Your task to perform on an android device: open app "Life360: Find Family & Friends" Image 0: 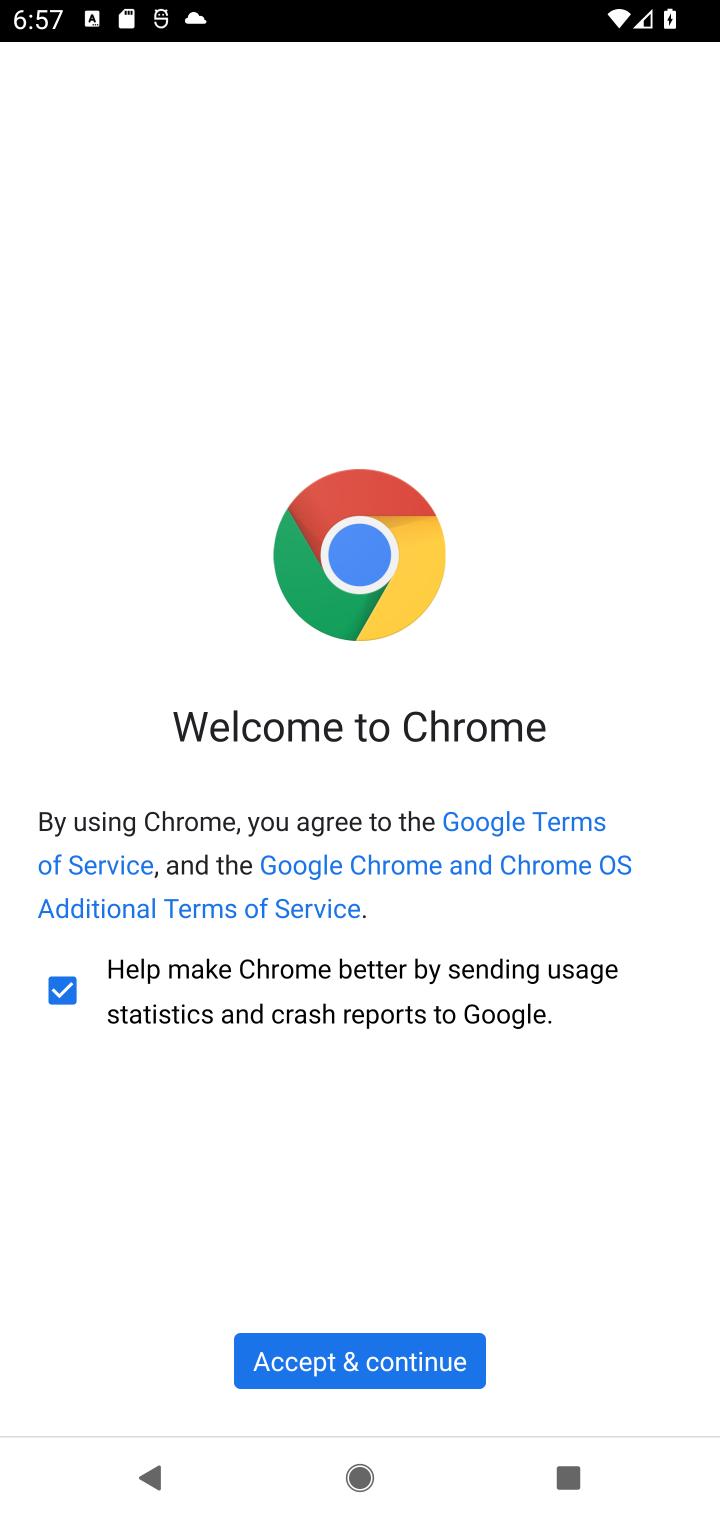
Step 0: press home button
Your task to perform on an android device: open app "Life360: Find Family & Friends" Image 1: 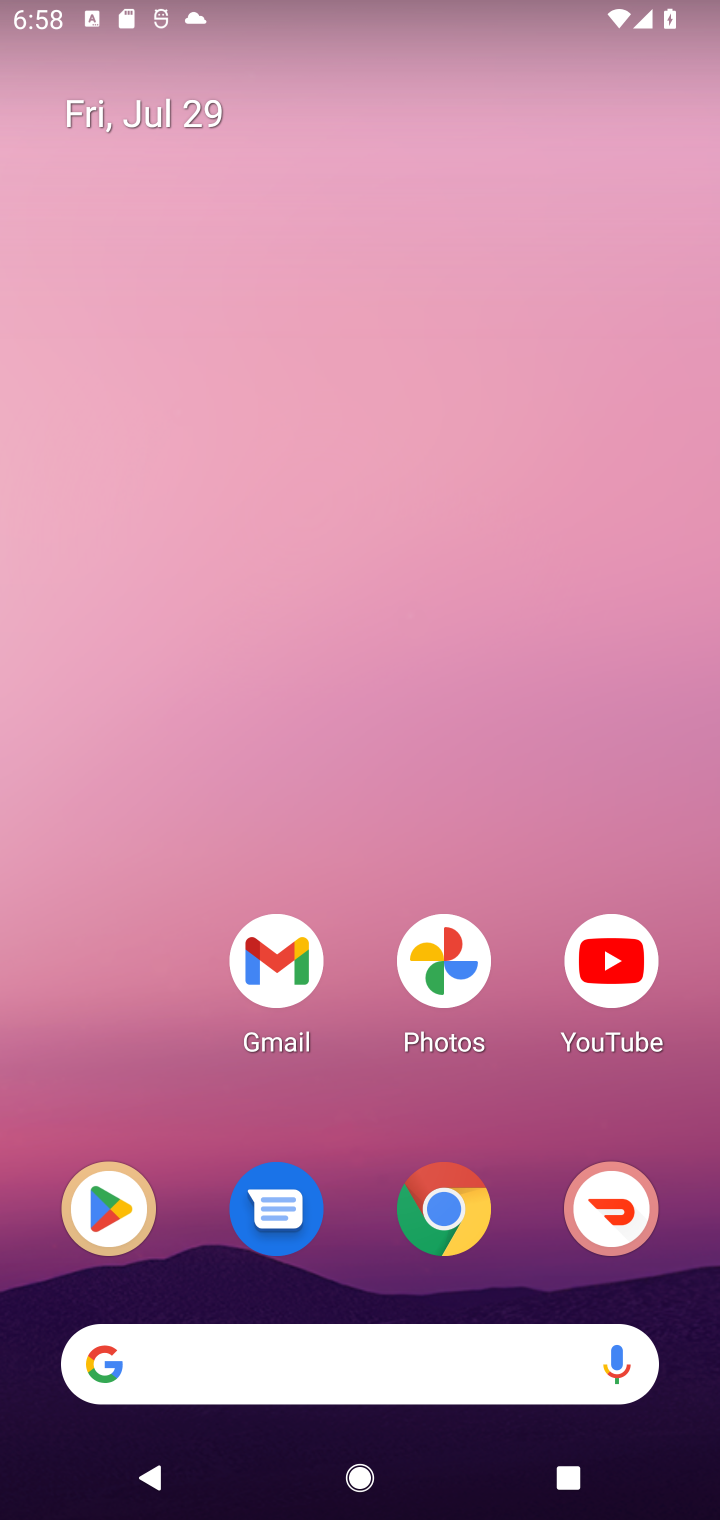
Step 1: click (115, 1223)
Your task to perform on an android device: open app "Life360: Find Family & Friends" Image 2: 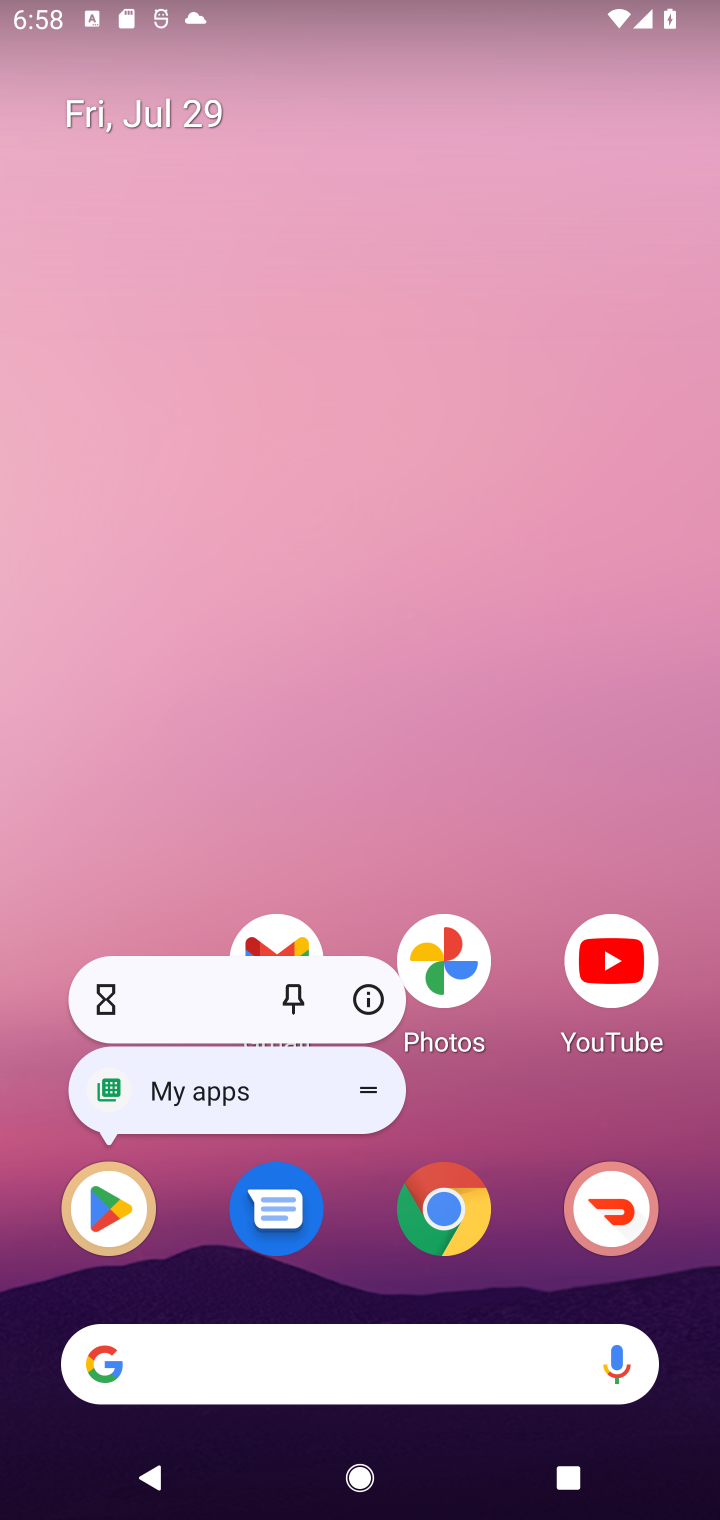
Step 2: click (115, 1223)
Your task to perform on an android device: open app "Life360: Find Family & Friends" Image 3: 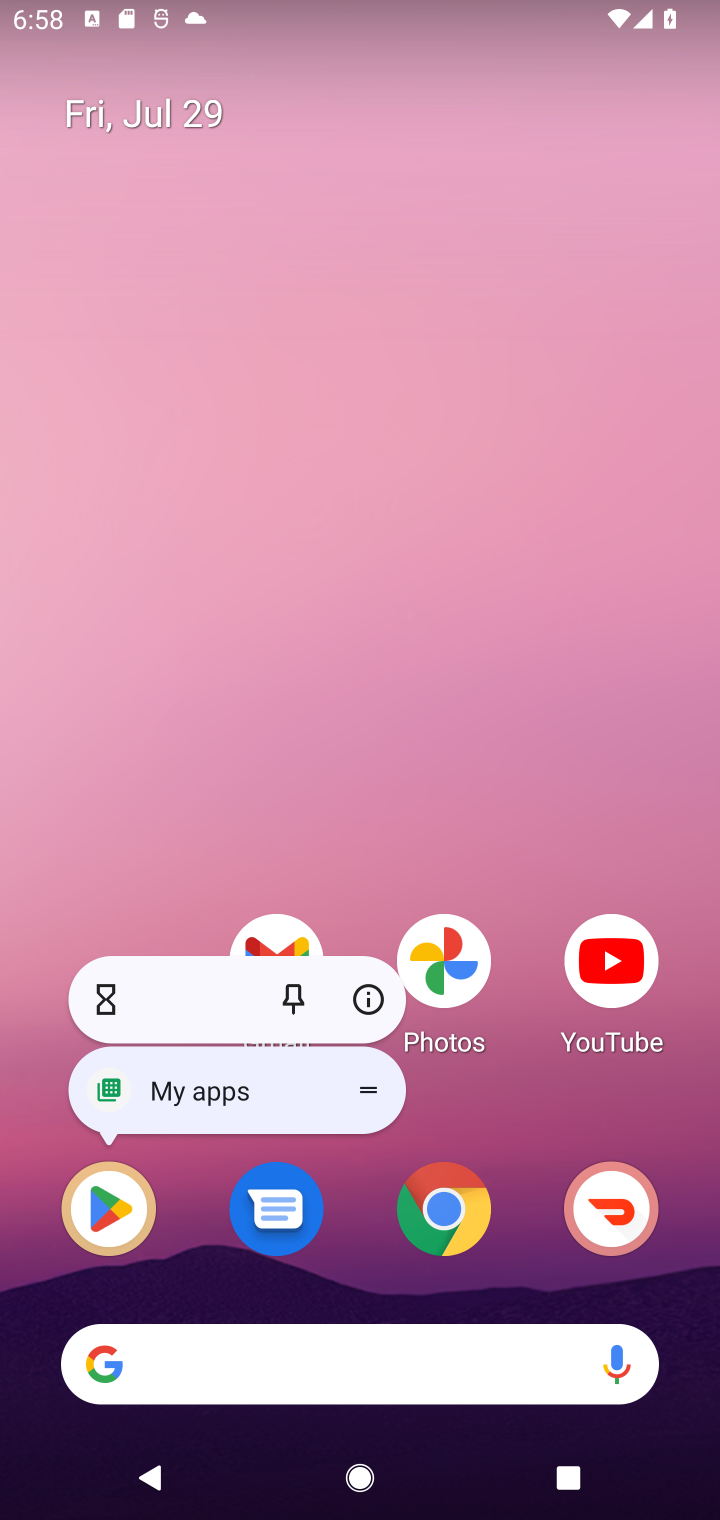
Step 3: click (105, 1224)
Your task to perform on an android device: open app "Life360: Find Family & Friends" Image 4: 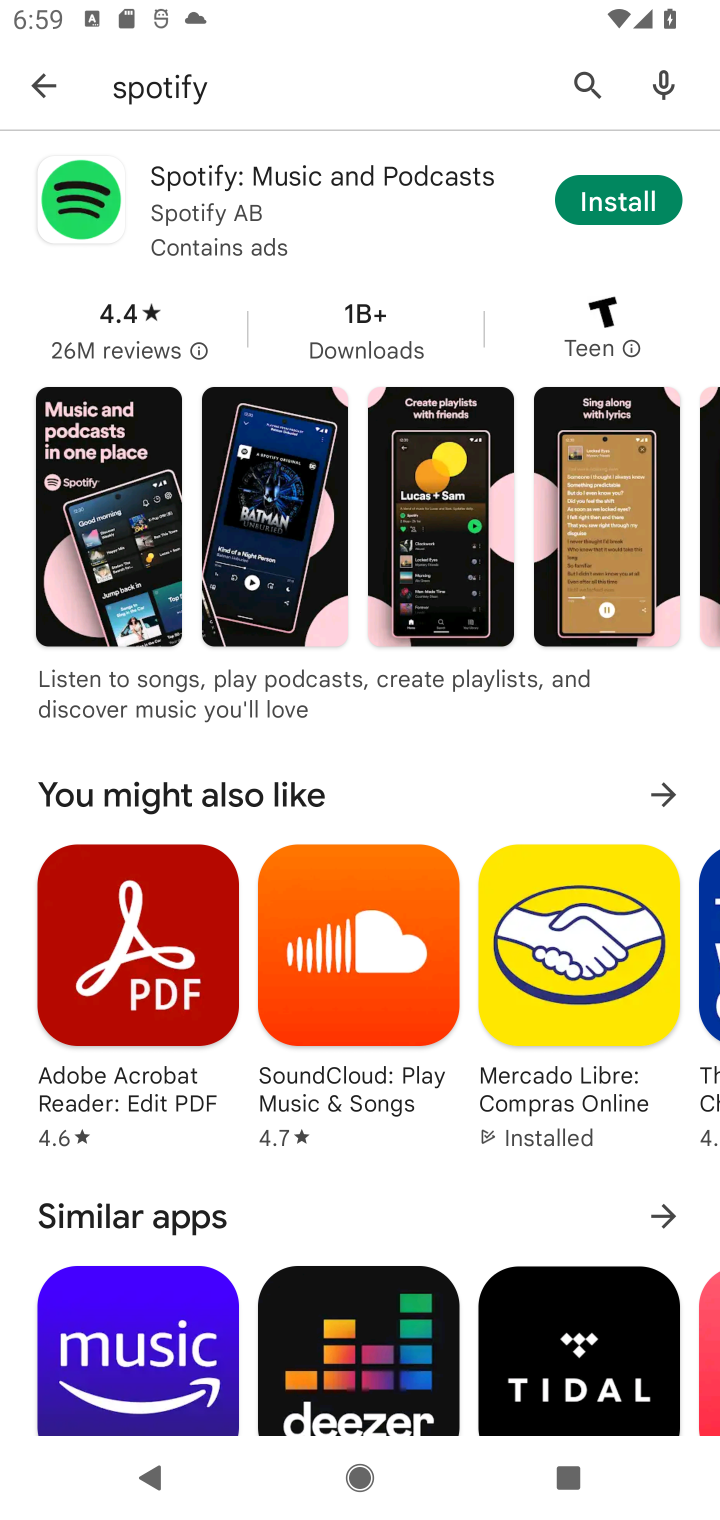
Step 4: click (591, 70)
Your task to perform on an android device: open app "Life360: Find Family & Friends" Image 5: 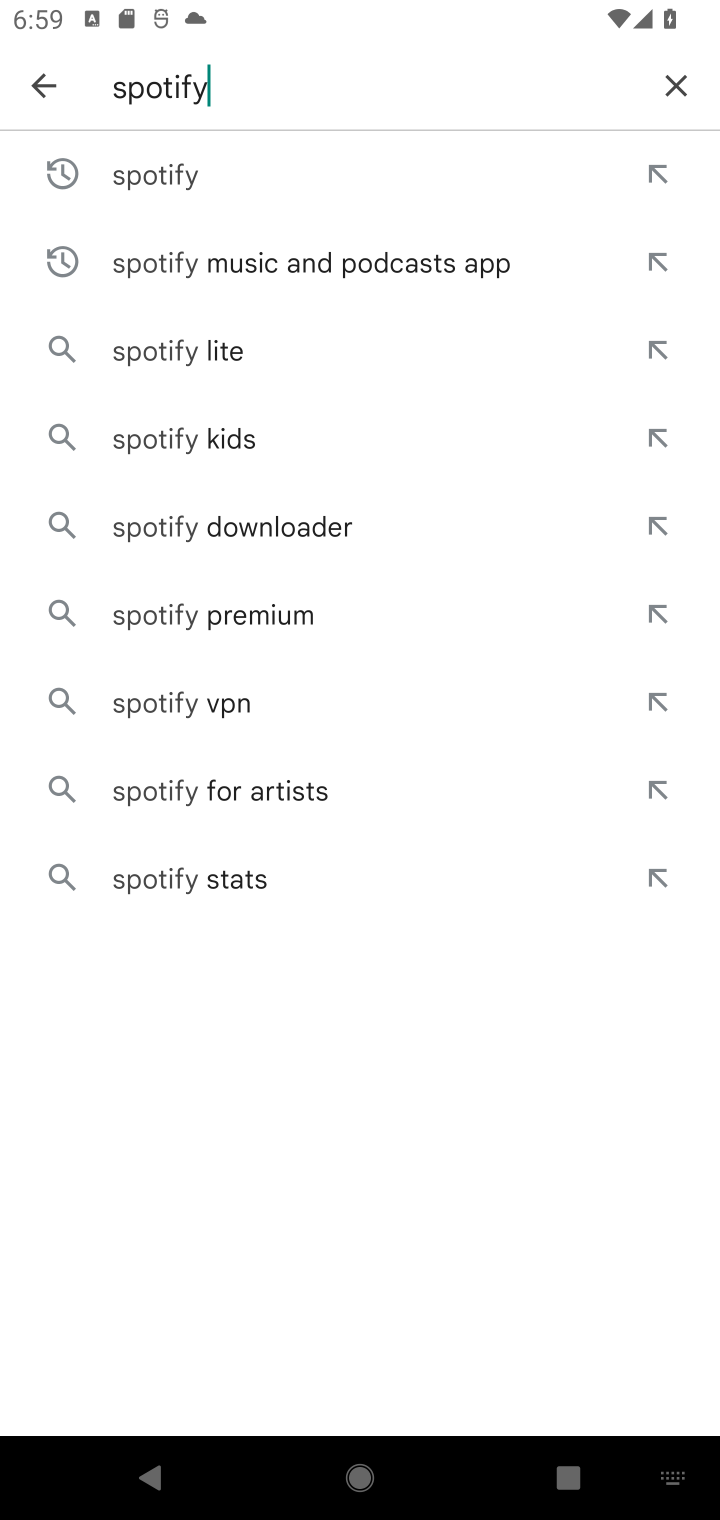
Step 5: click (685, 79)
Your task to perform on an android device: open app "Life360: Find Family & Friends" Image 6: 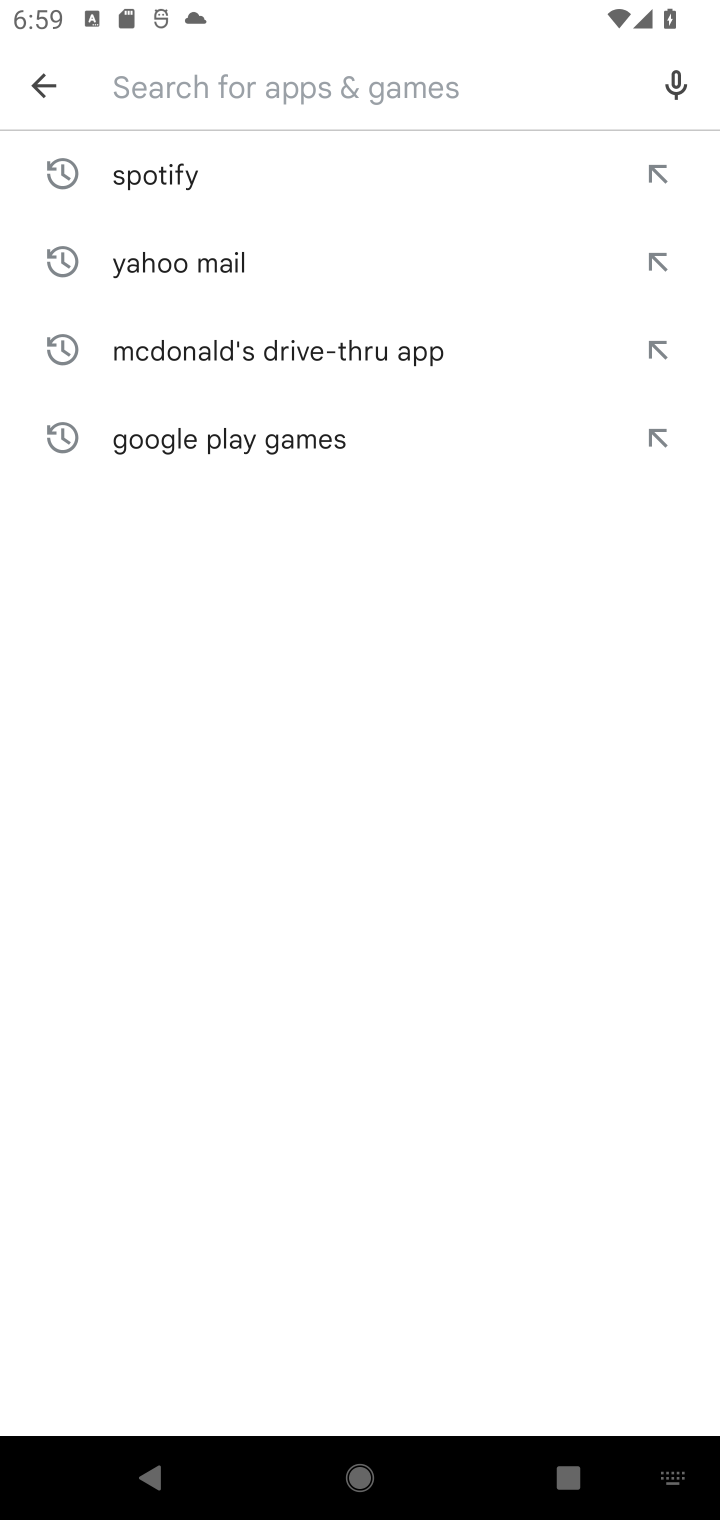
Step 6: type "Life360: Find Family & Friends"
Your task to perform on an android device: open app "Life360: Find Family & Friends" Image 7: 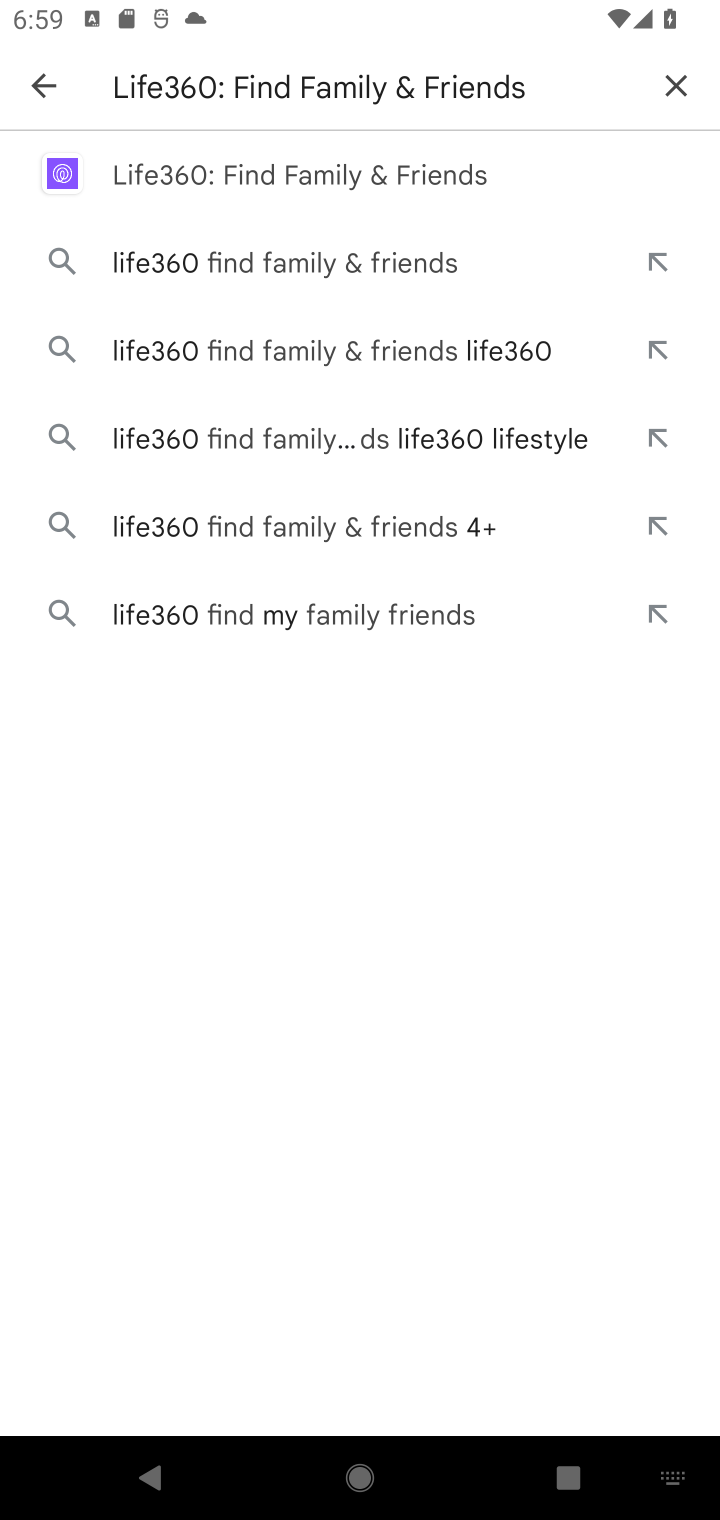
Step 7: click (407, 184)
Your task to perform on an android device: open app "Life360: Find Family & Friends" Image 8: 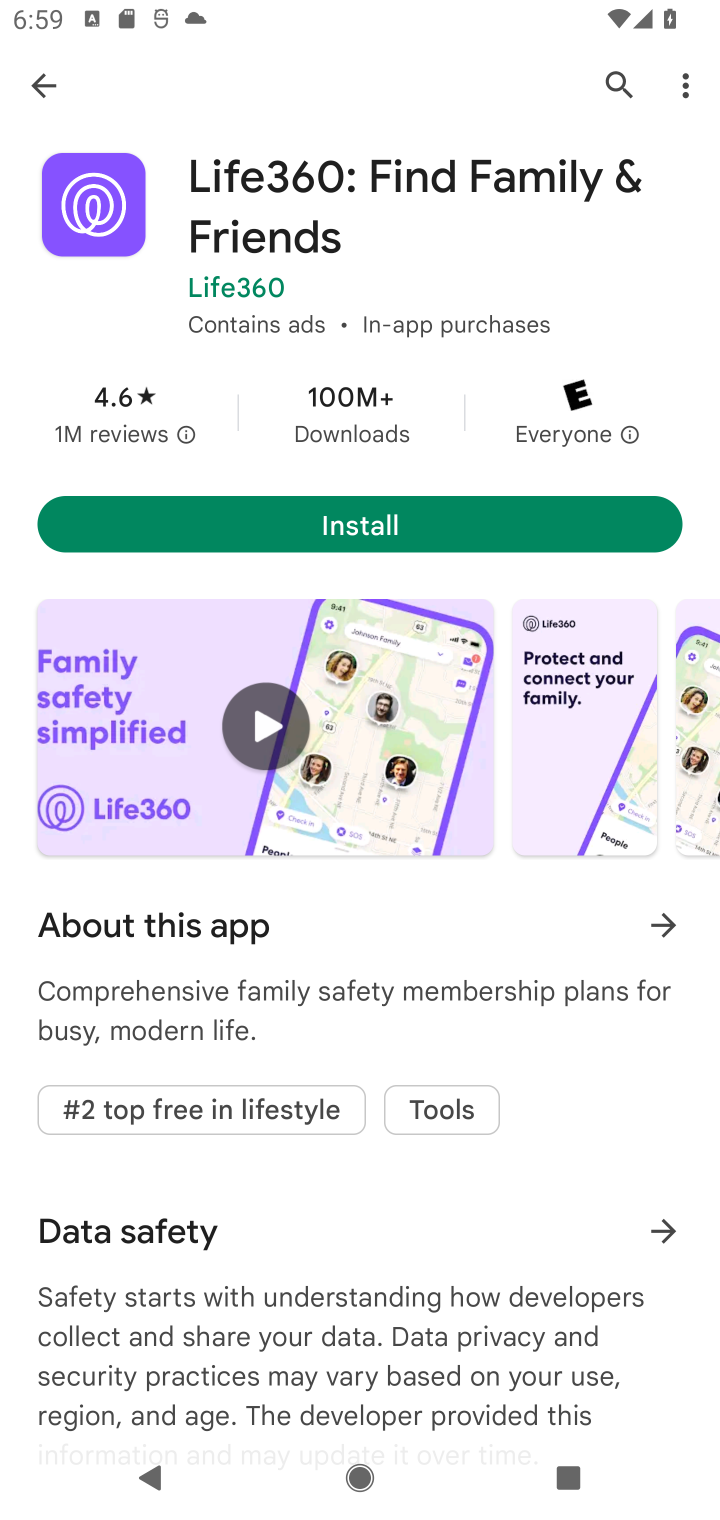
Step 8: task complete